Your task to perform on an android device: remove spam from my inbox in the gmail app Image 0: 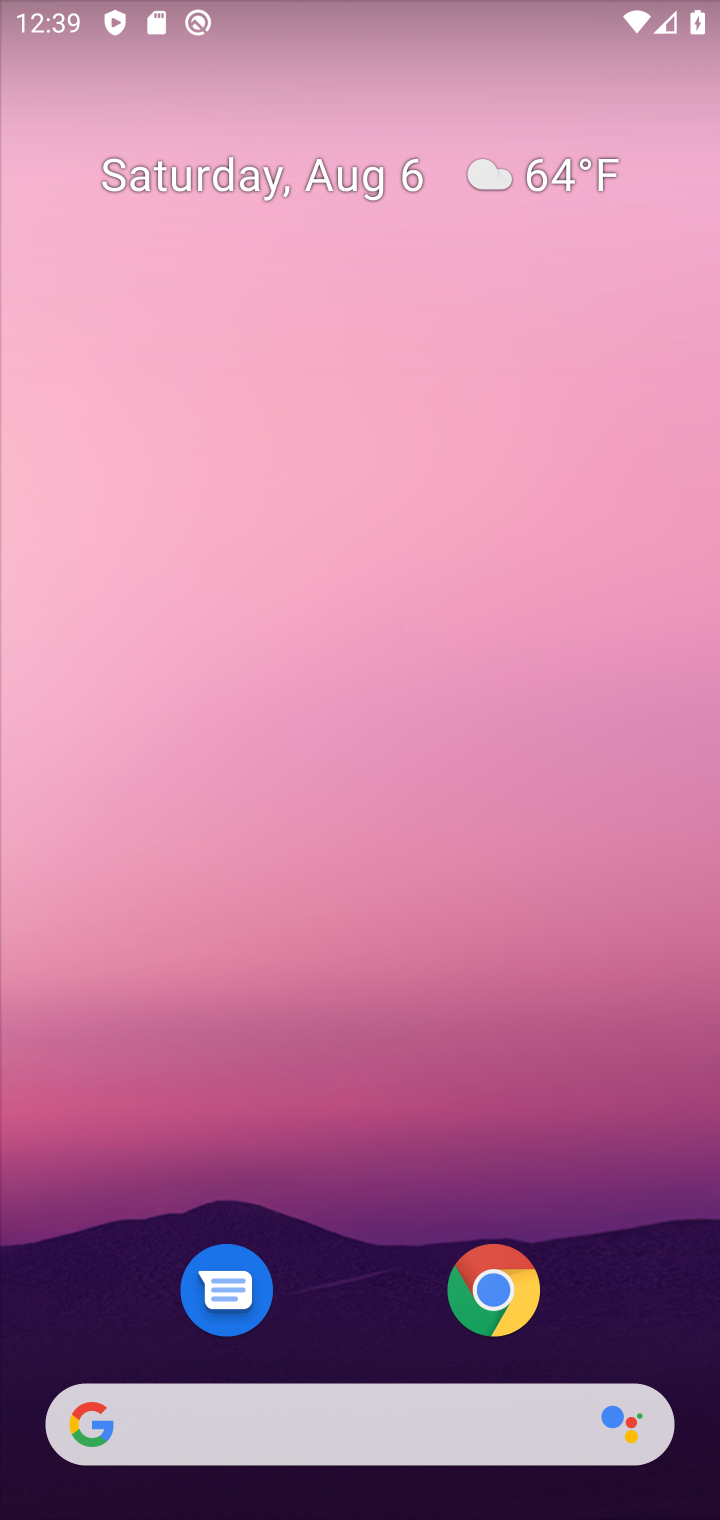
Step 0: drag from (384, 1323) to (328, 267)
Your task to perform on an android device: remove spam from my inbox in the gmail app Image 1: 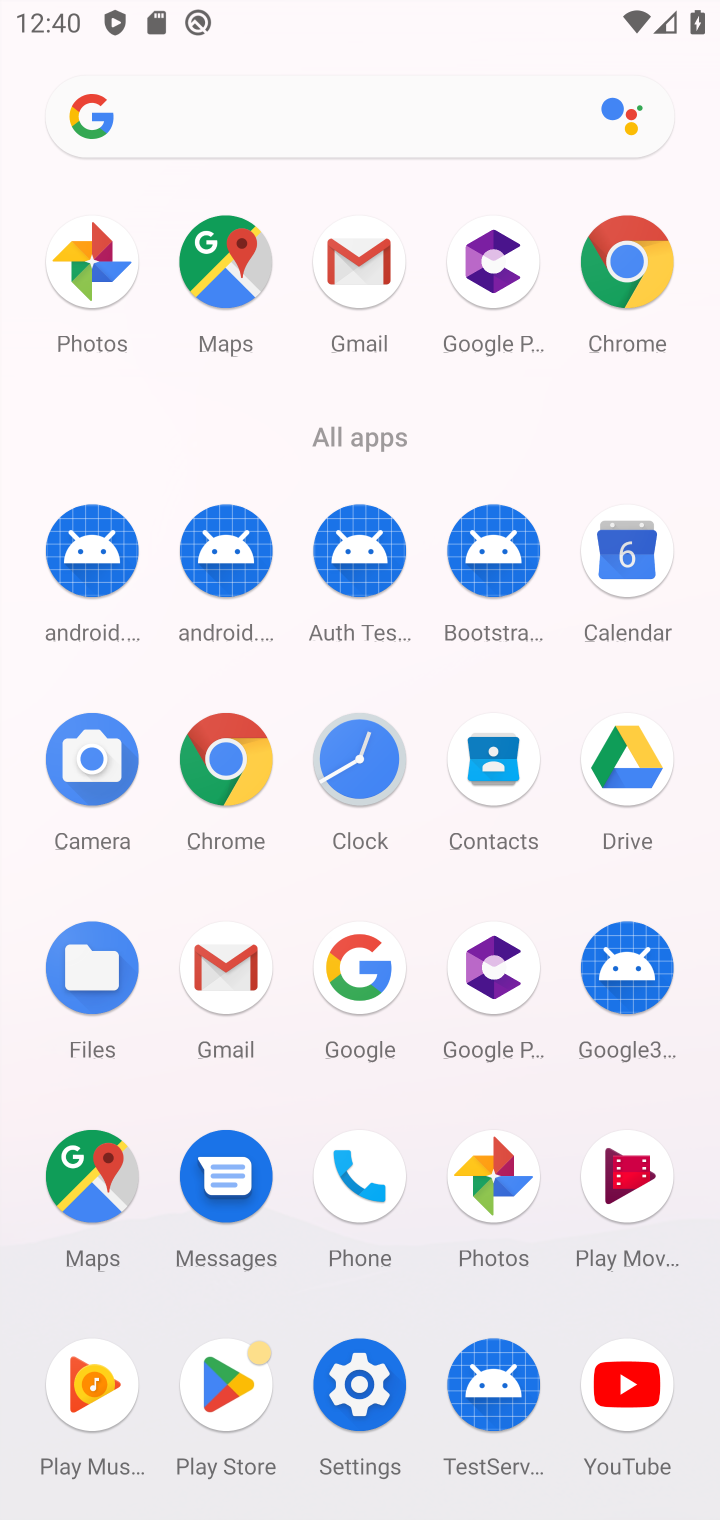
Step 1: click (240, 962)
Your task to perform on an android device: remove spam from my inbox in the gmail app Image 2: 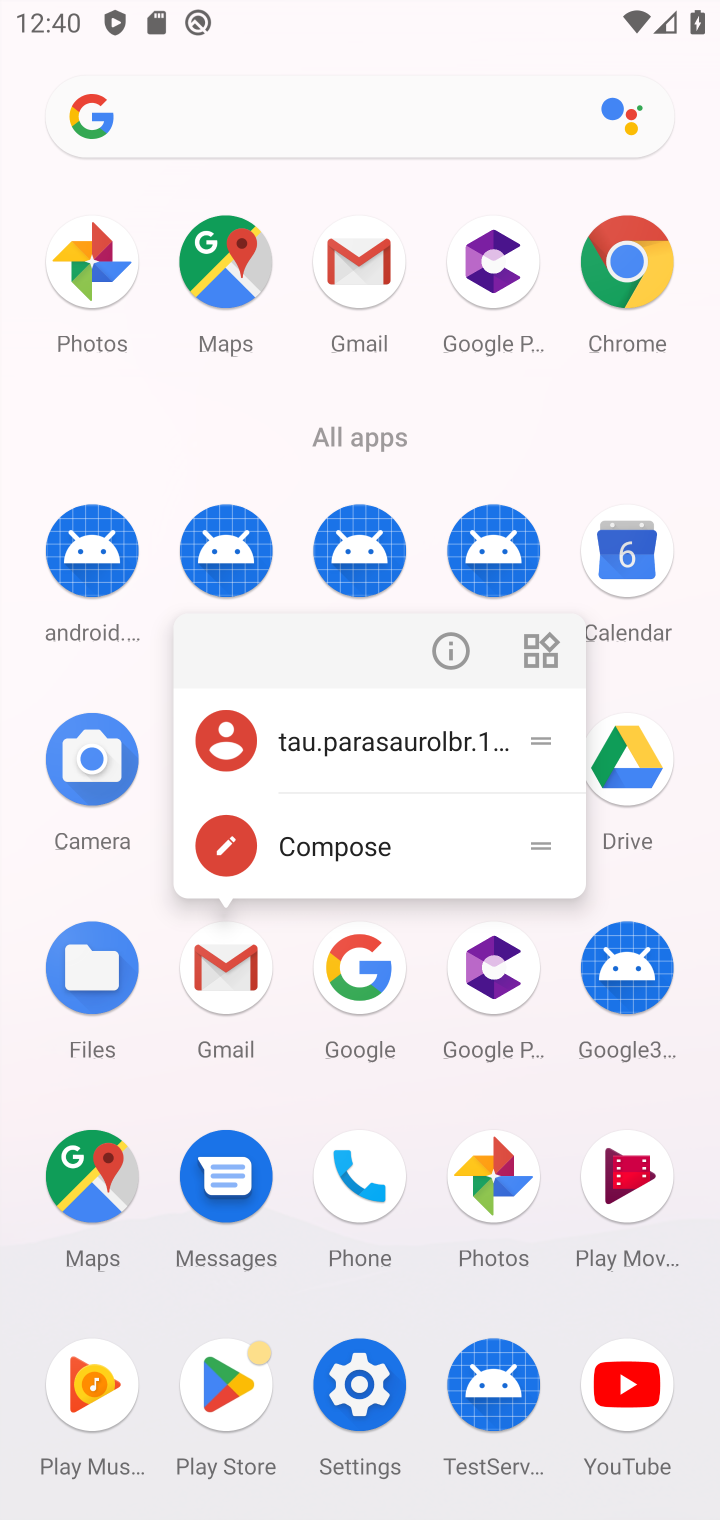
Step 2: click (249, 970)
Your task to perform on an android device: remove spam from my inbox in the gmail app Image 3: 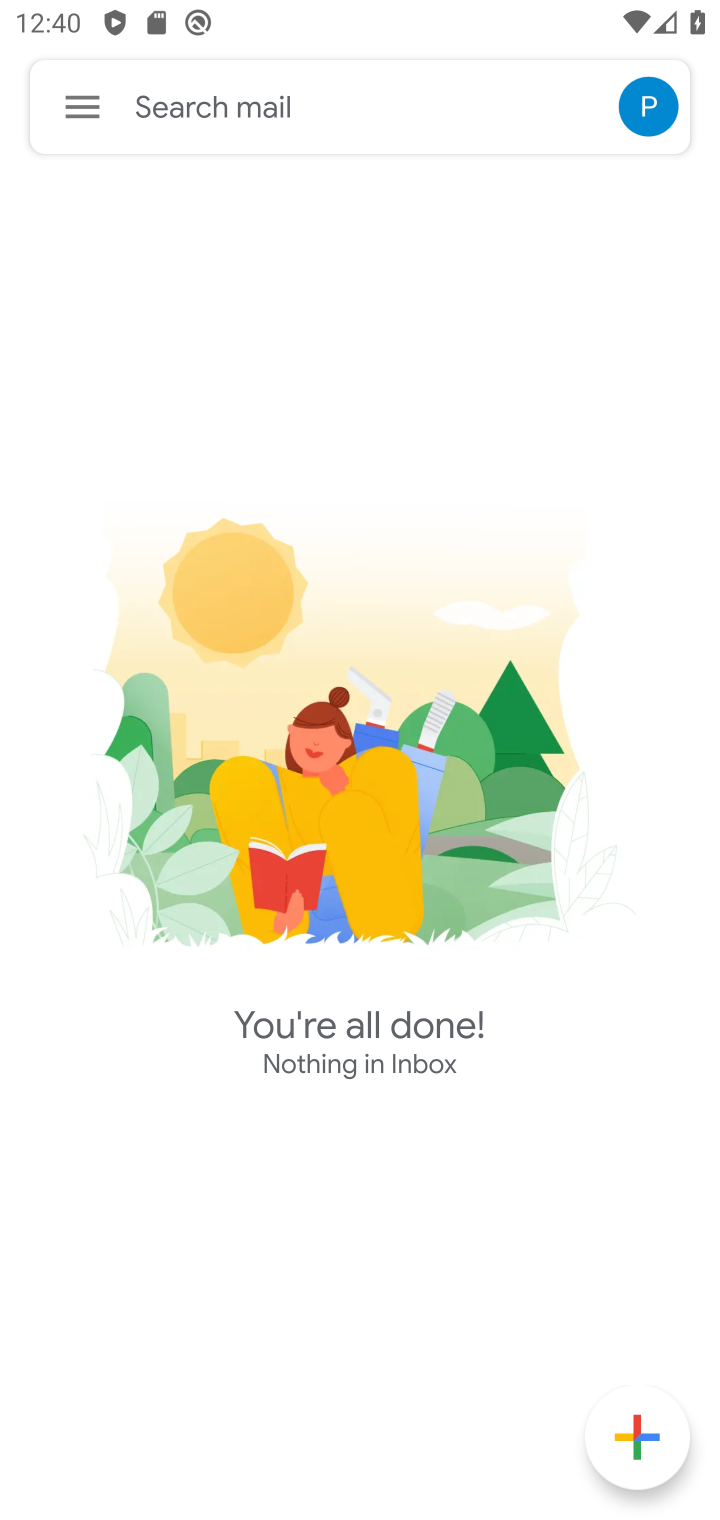
Step 3: click (98, 118)
Your task to perform on an android device: remove spam from my inbox in the gmail app Image 4: 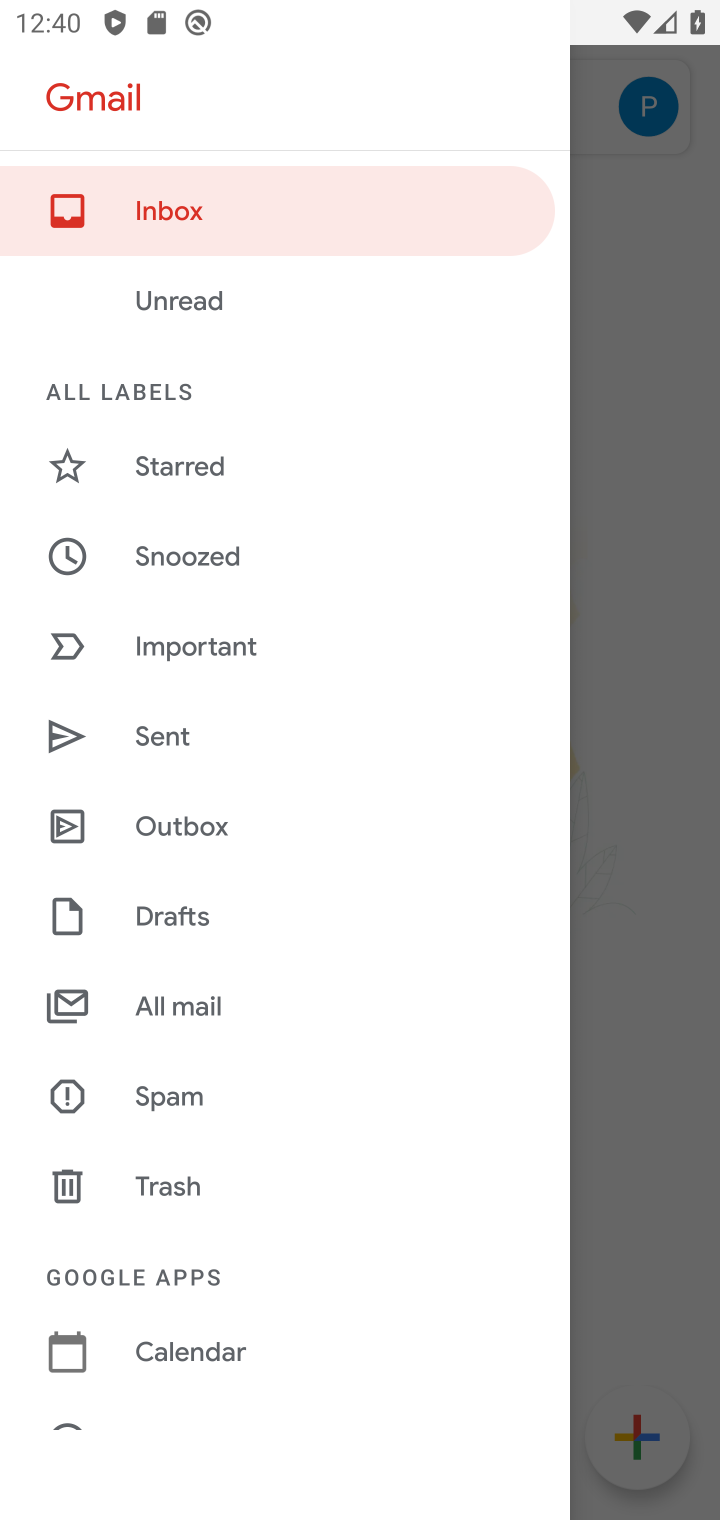
Step 4: click (142, 1109)
Your task to perform on an android device: remove spam from my inbox in the gmail app Image 5: 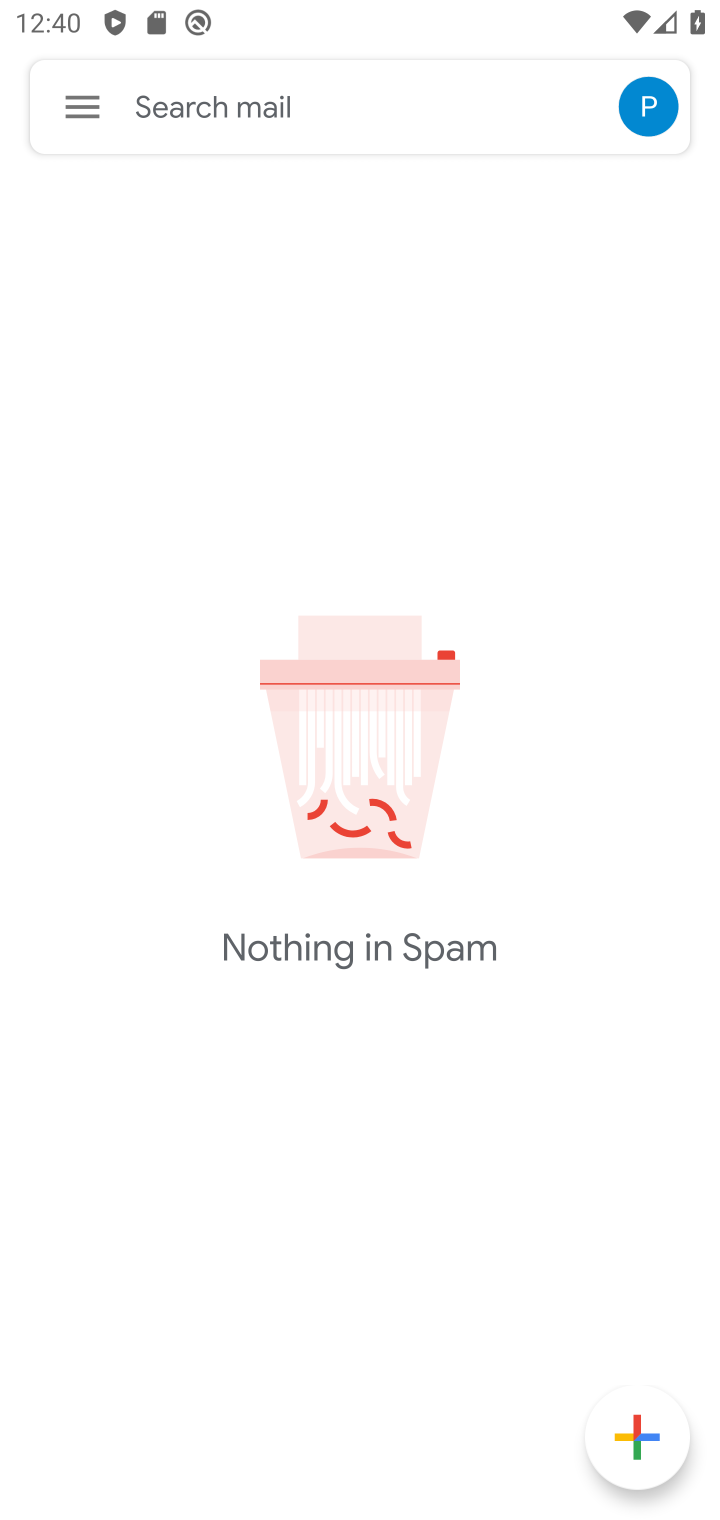
Step 5: task complete